Your task to perform on an android device: Open eBay Image 0: 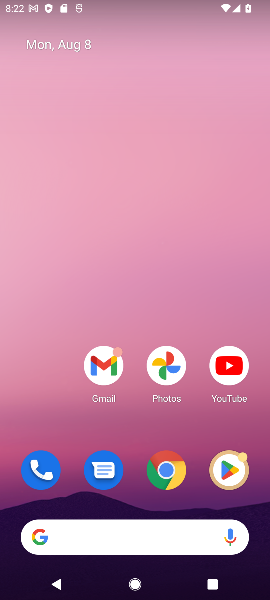
Step 0: drag from (124, 527) to (164, 235)
Your task to perform on an android device: Open eBay Image 1: 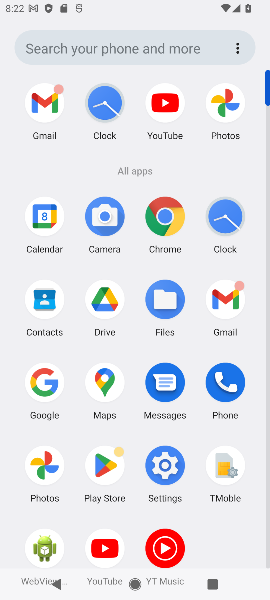
Step 1: click (45, 382)
Your task to perform on an android device: Open eBay Image 2: 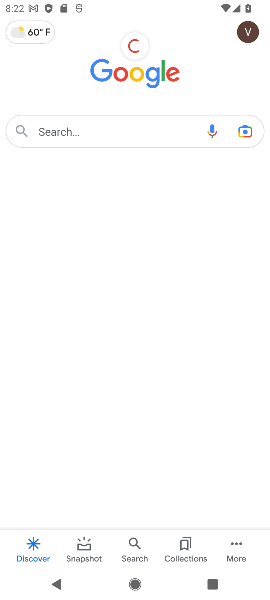
Step 2: click (85, 136)
Your task to perform on an android device: Open eBay Image 3: 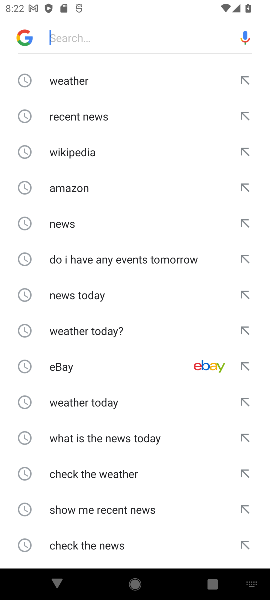
Step 3: click (74, 369)
Your task to perform on an android device: Open eBay Image 4: 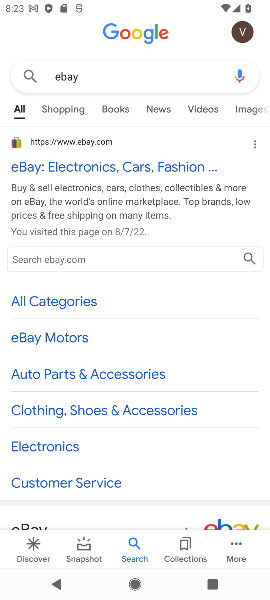
Step 4: click (91, 172)
Your task to perform on an android device: Open eBay Image 5: 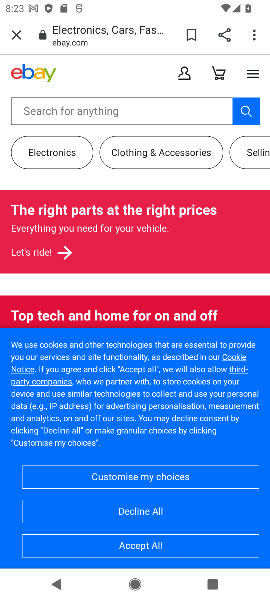
Step 5: task complete